Your task to perform on an android device: find which apps use the phone's location Image 0: 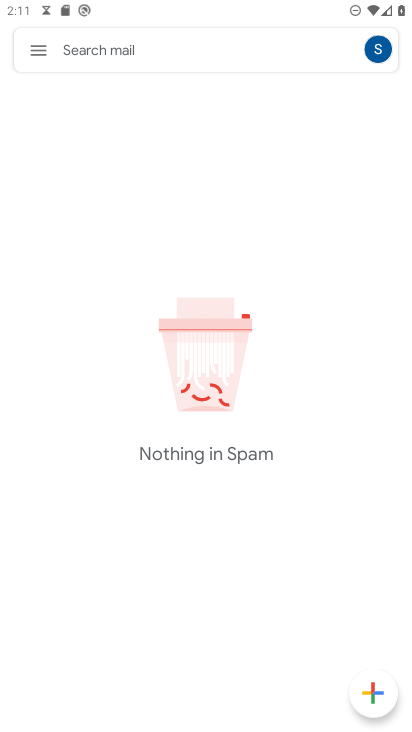
Step 0: press home button
Your task to perform on an android device: find which apps use the phone's location Image 1: 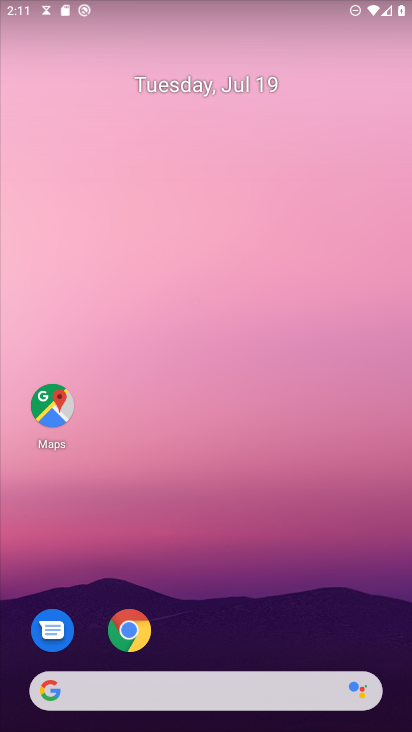
Step 1: drag from (167, 692) to (288, 110)
Your task to perform on an android device: find which apps use the phone's location Image 2: 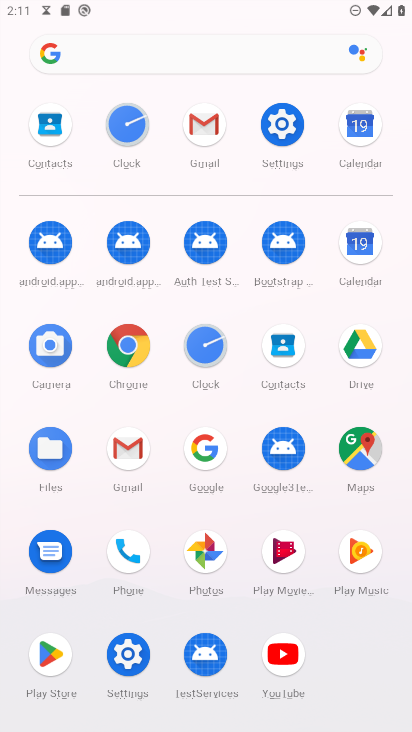
Step 2: click (270, 132)
Your task to perform on an android device: find which apps use the phone's location Image 3: 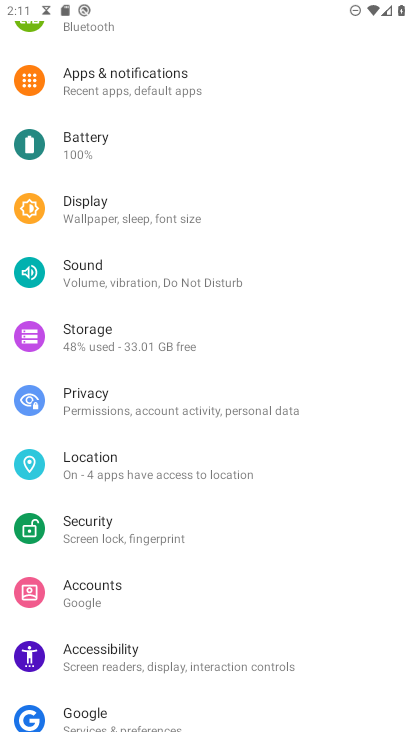
Step 3: click (117, 463)
Your task to perform on an android device: find which apps use the phone's location Image 4: 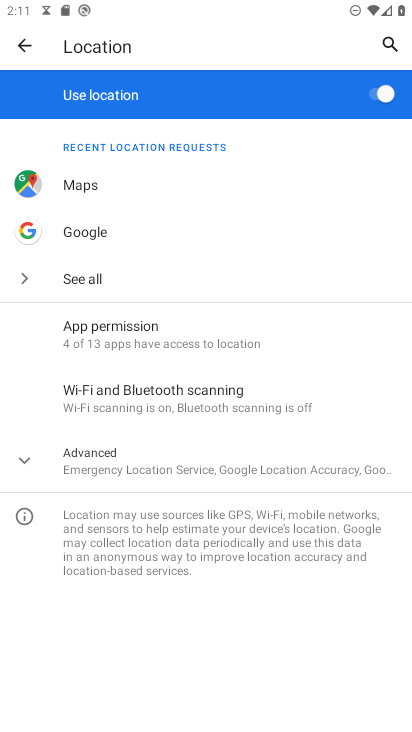
Step 4: click (143, 332)
Your task to perform on an android device: find which apps use the phone's location Image 5: 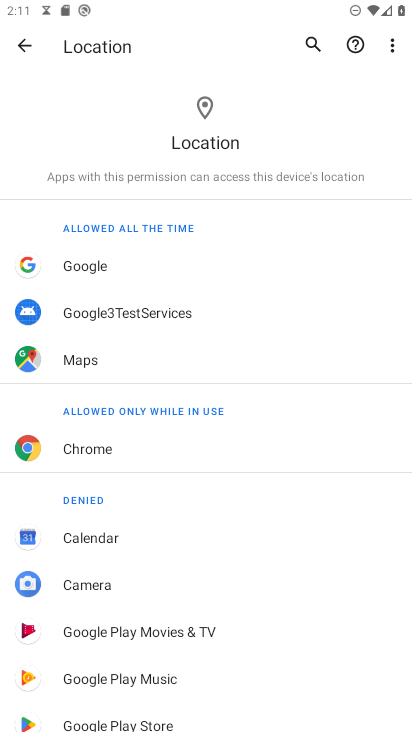
Step 5: drag from (275, 617) to (334, 147)
Your task to perform on an android device: find which apps use the phone's location Image 6: 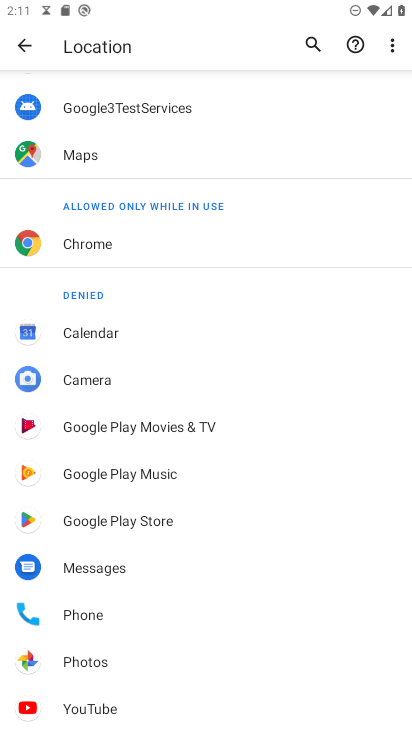
Step 6: click (99, 621)
Your task to perform on an android device: find which apps use the phone's location Image 7: 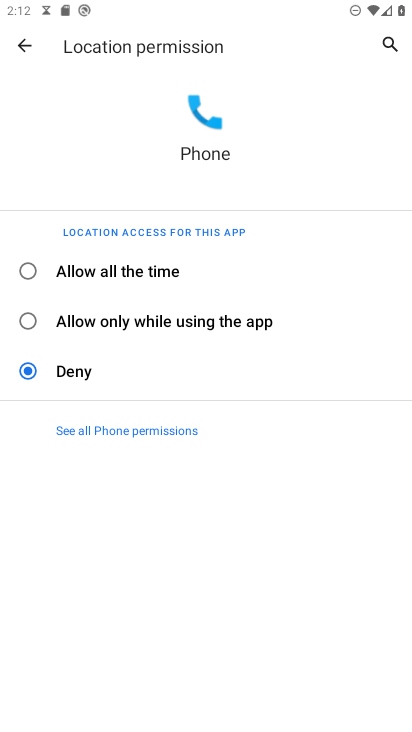
Step 7: task complete